Your task to perform on an android device: Open Youtube and go to the subscriptions tab Image 0: 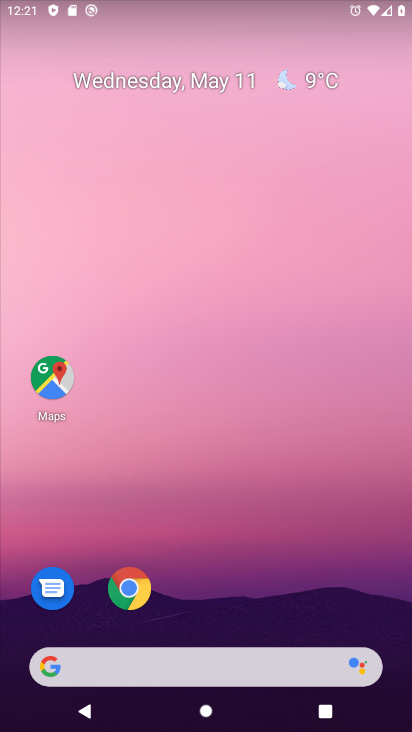
Step 0: drag from (327, 603) to (328, 64)
Your task to perform on an android device: Open Youtube and go to the subscriptions tab Image 1: 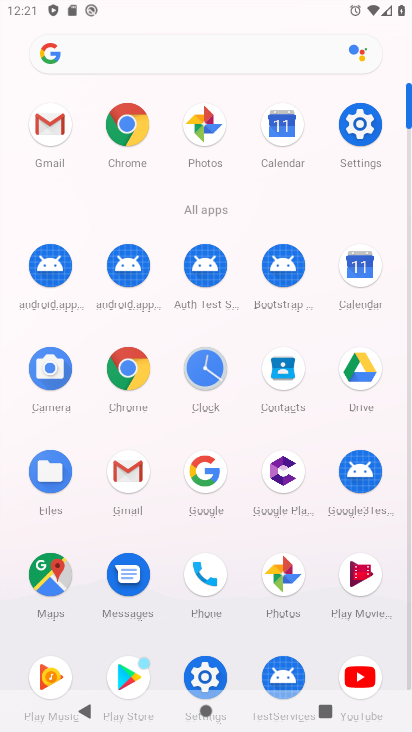
Step 1: click (362, 668)
Your task to perform on an android device: Open Youtube and go to the subscriptions tab Image 2: 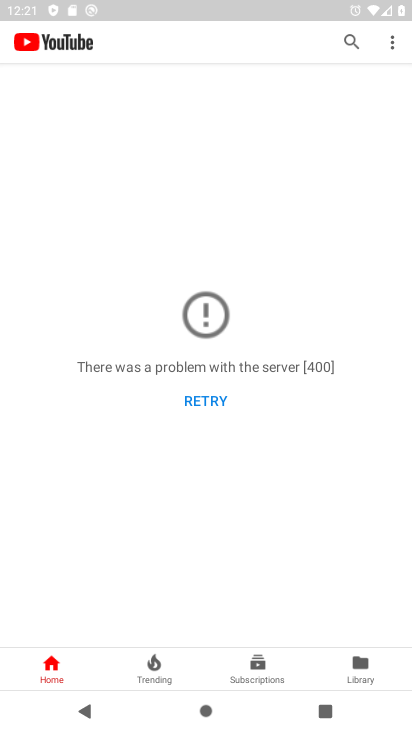
Step 2: click (256, 665)
Your task to perform on an android device: Open Youtube and go to the subscriptions tab Image 3: 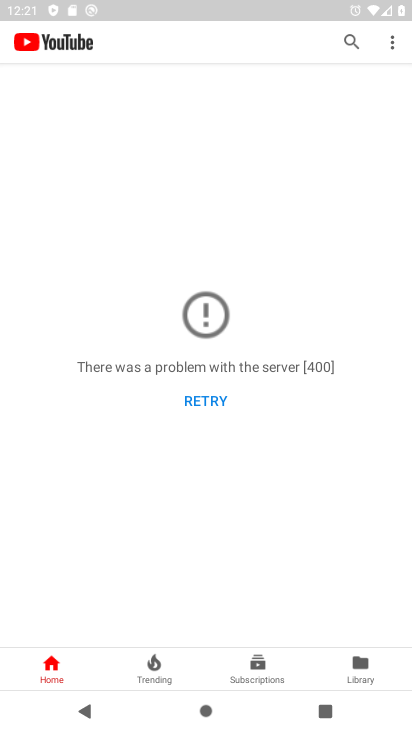
Step 3: click (260, 672)
Your task to perform on an android device: Open Youtube and go to the subscriptions tab Image 4: 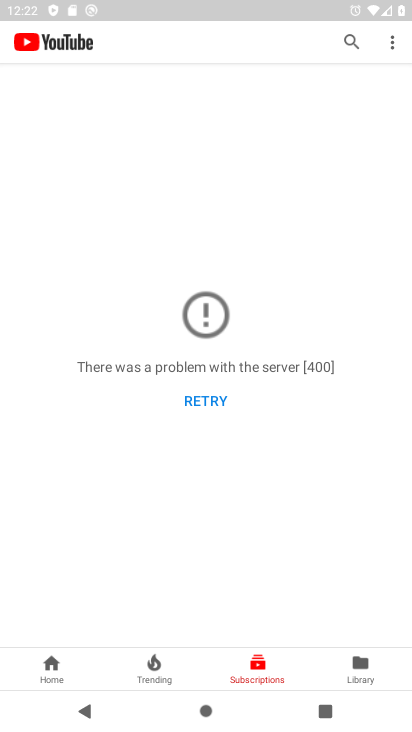
Step 4: task complete